Your task to perform on an android device: toggle priority inbox in the gmail app Image 0: 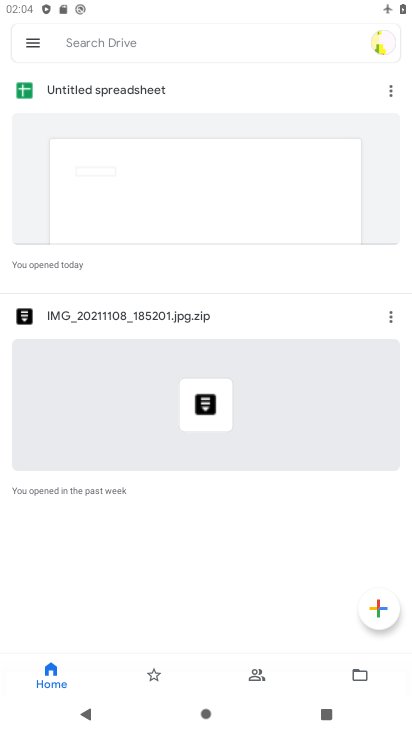
Step 0: press home button
Your task to perform on an android device: toggle priority inbox in the gmail app Image 1: 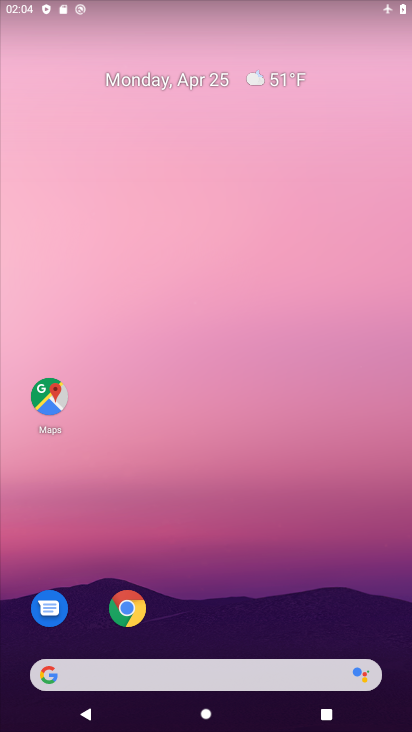
Step 1: drag from (223, 586) to (211, 19)
Your task to perform on an android device: toggle priority inbox in the gmail app Image 2: 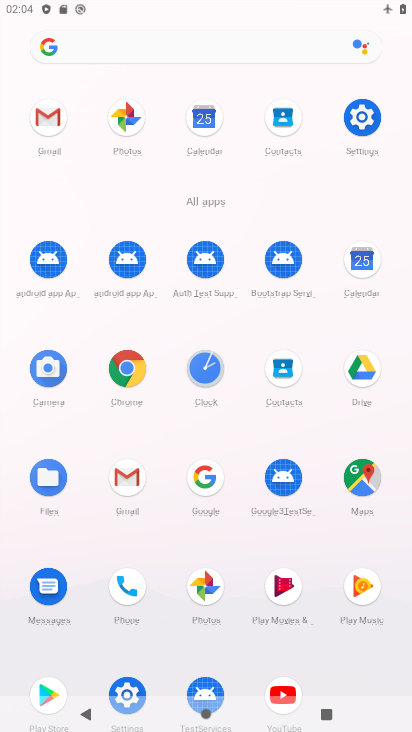
Step 2: click (44, 122)
Your task to perform on an android device: toggle priority inbox in the gmail app Image 3: 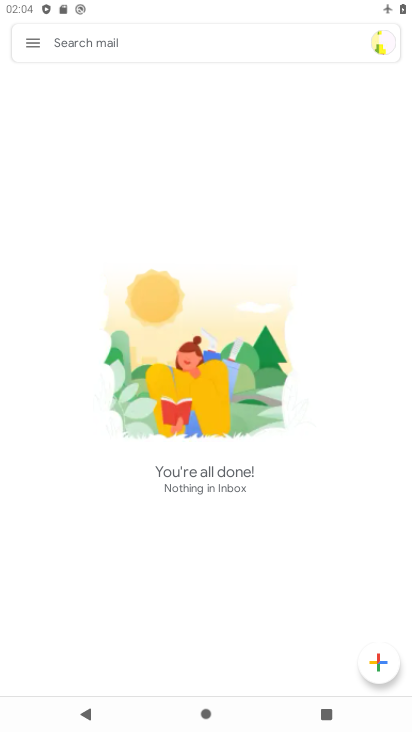
Step 3: click (29, 47)
Your task to perform on an android device: toggle priority inbox in the gmail app Image 4: 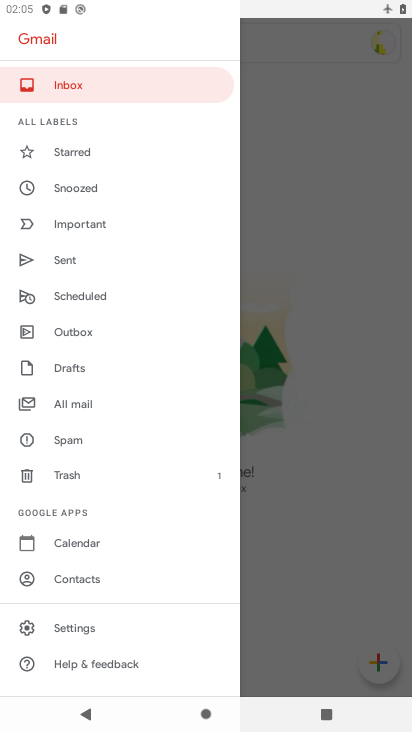
Step 4: click (79, 636)
Your task to perform on an android device: toggle priority inbox in the gmail app Image 5: 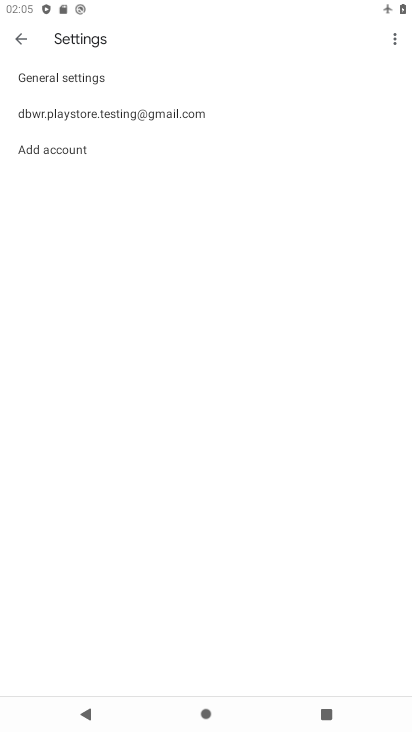
Step 5: click (124, 116)
Your task to perform on an android device: toggle priority inbox in the gmail app Image 6: 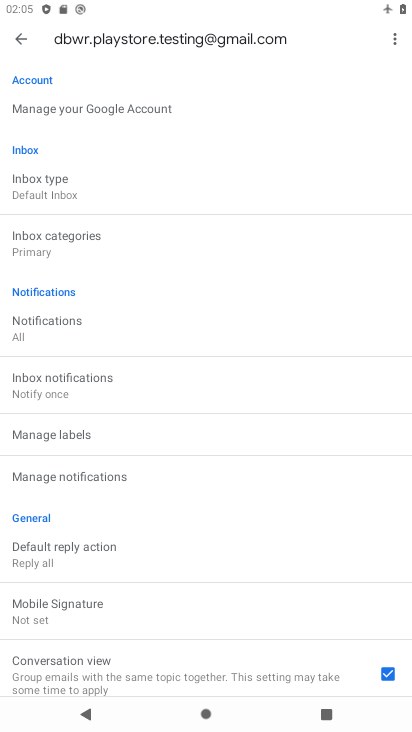
Step 6: click (85, 198)
Your task to perform on an android device: toggle priority inbox in the gmail app Image 7: 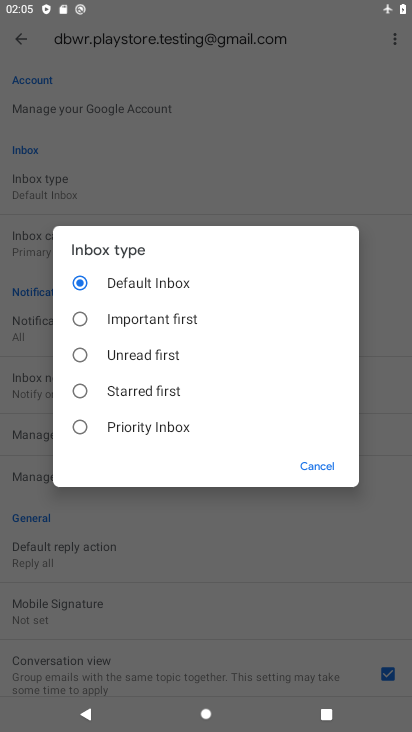
Step 7: click (89, 429)
Your task to perform on an android device: toggle priority inbox in the gmail app Image 8: 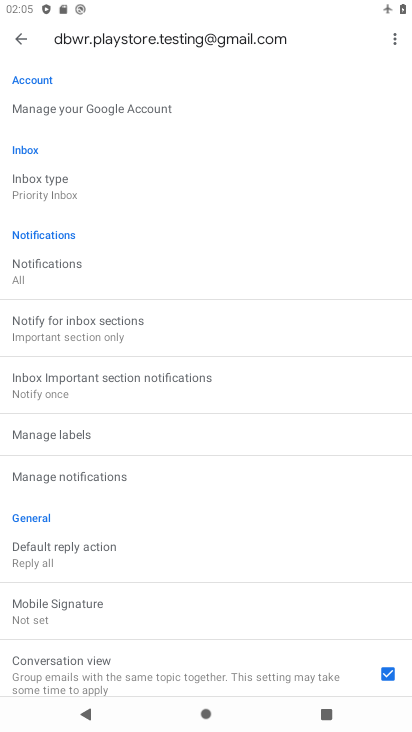
Step 8: task complete